Your task to perform on an android device: Clear all items from cart on walmart.com. Image 0: 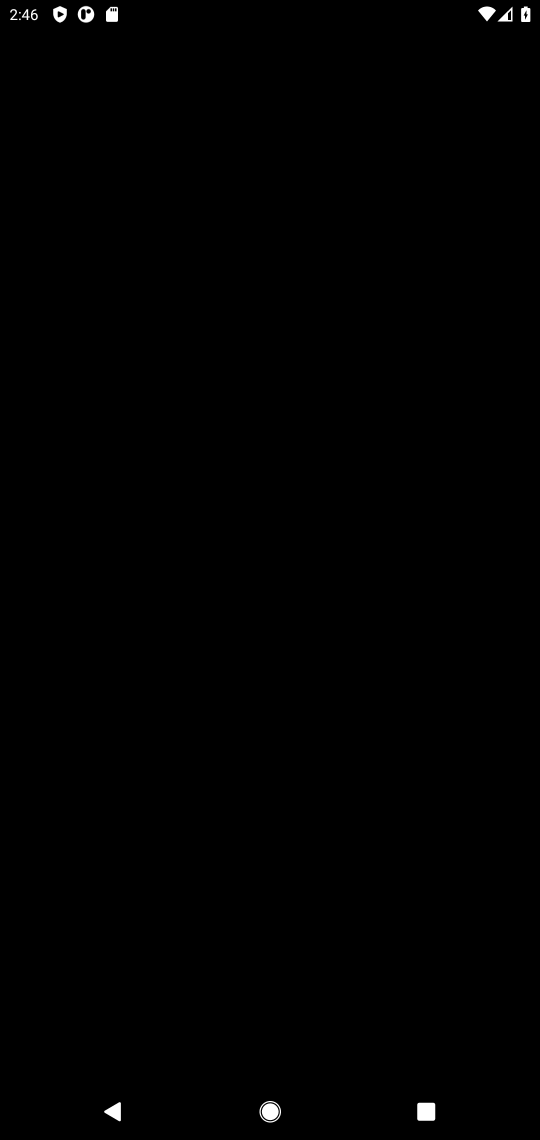
Step 0: press home button
Your task to perform on an android device: Clear all items from cart on walmart.com. Image 1: 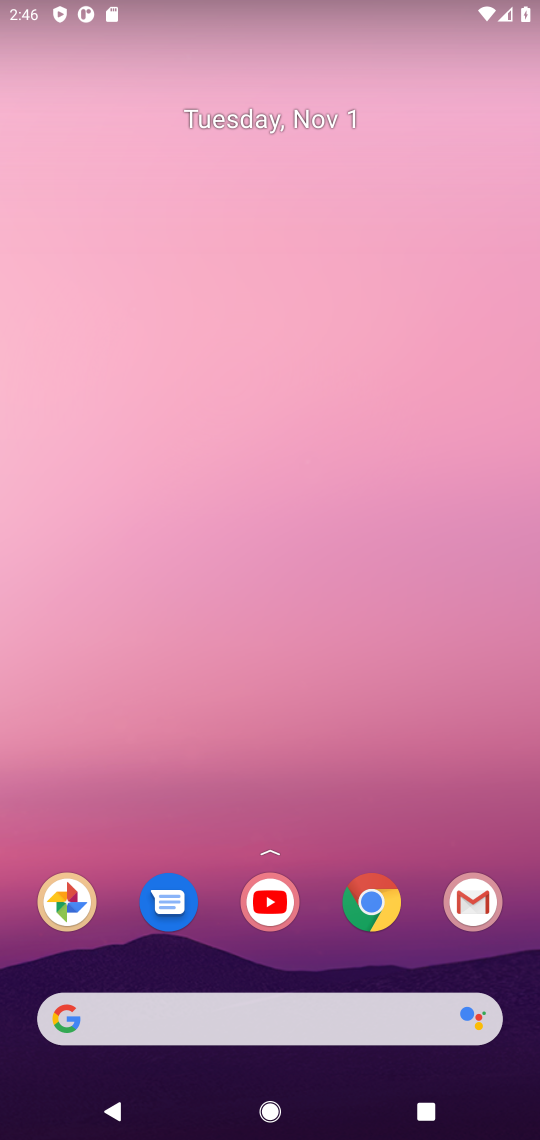
Step 1: click (370, 904)
Your task to perform on an android device: Clear all items from cart on walmart.com. Image 2: 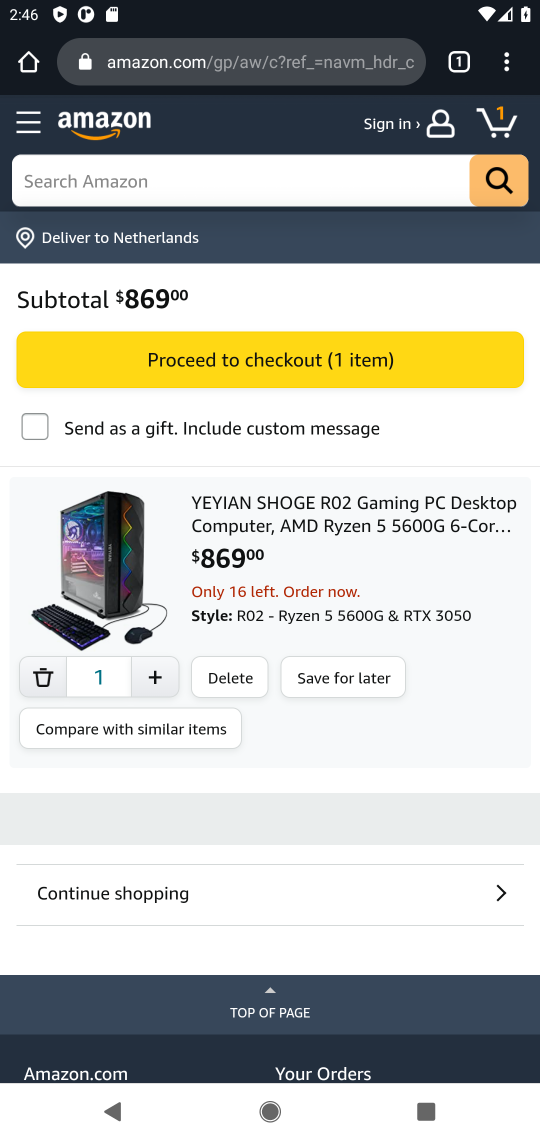
Step 2: click (289, 64)
Your task to perform on an android device: Clear all items from cart on walmart.com. Image 3: 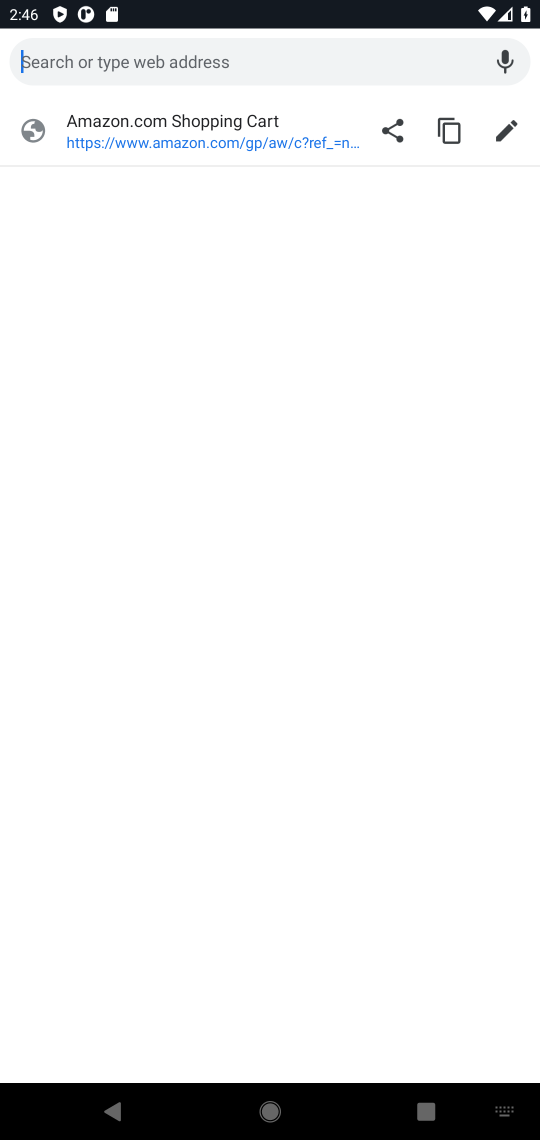
Step 3: type "walmart.com"
Your task to perform on an android device: Clear all items from cart on walmart.com. Image 4: 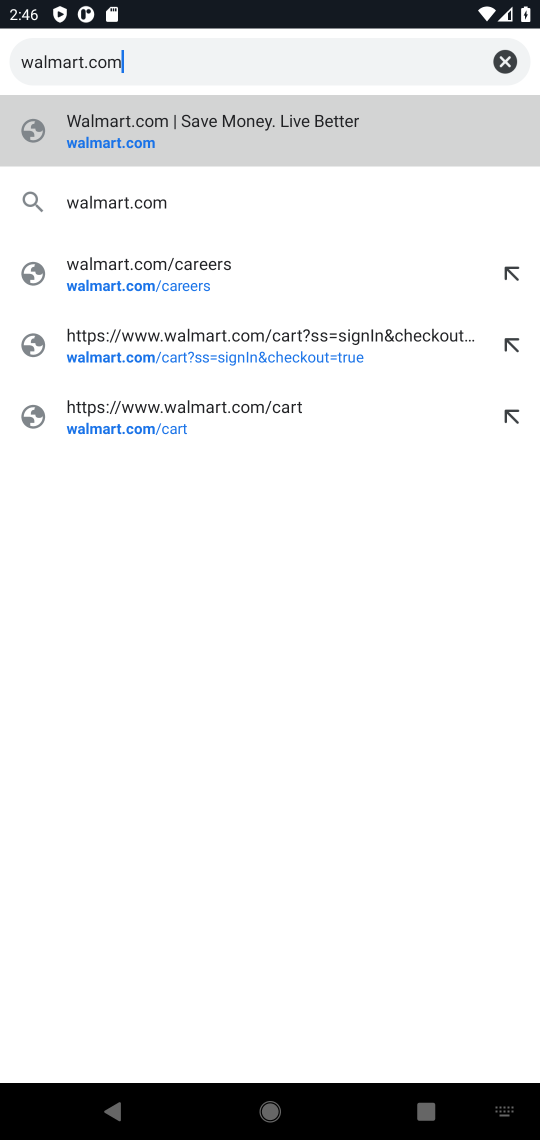
Step 4: click (158, 198)
Your task to perform on an android device: Clear all items from cart on walmart.com. Image 5: 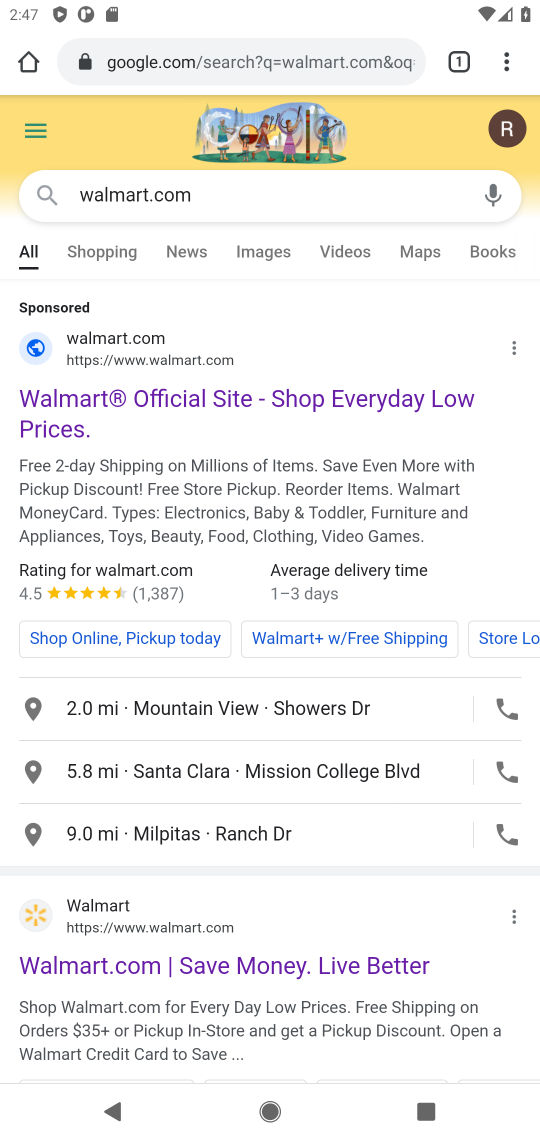
Step 5: click (153, 962)
Your task to perform on an android device: Clear all items from cart on walmart.com. Image 6: 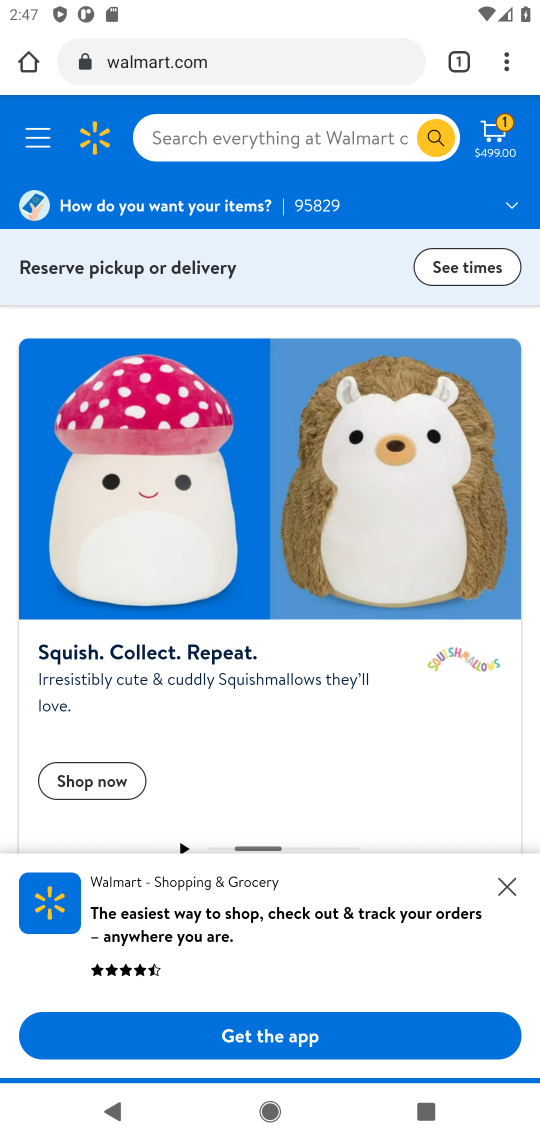
Step 6: click (498, 128)
Your task to perform on an android device: Clear all items from cart on walmart.com. Image 7: 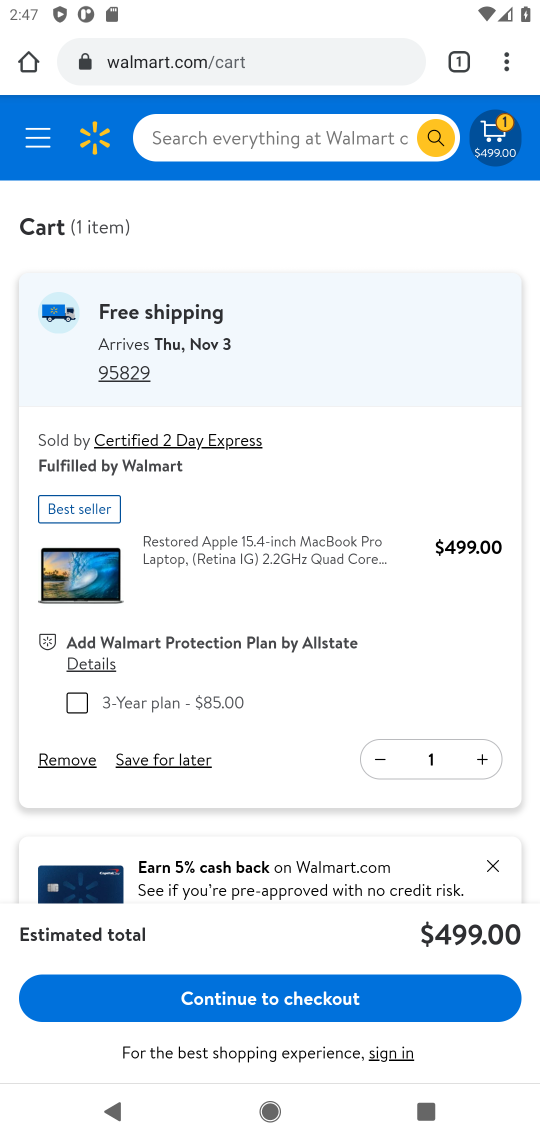
Step 7: click (71, 757)
Your task to perform on an android device: Clear all items from cart on walmart.com. Image 8: 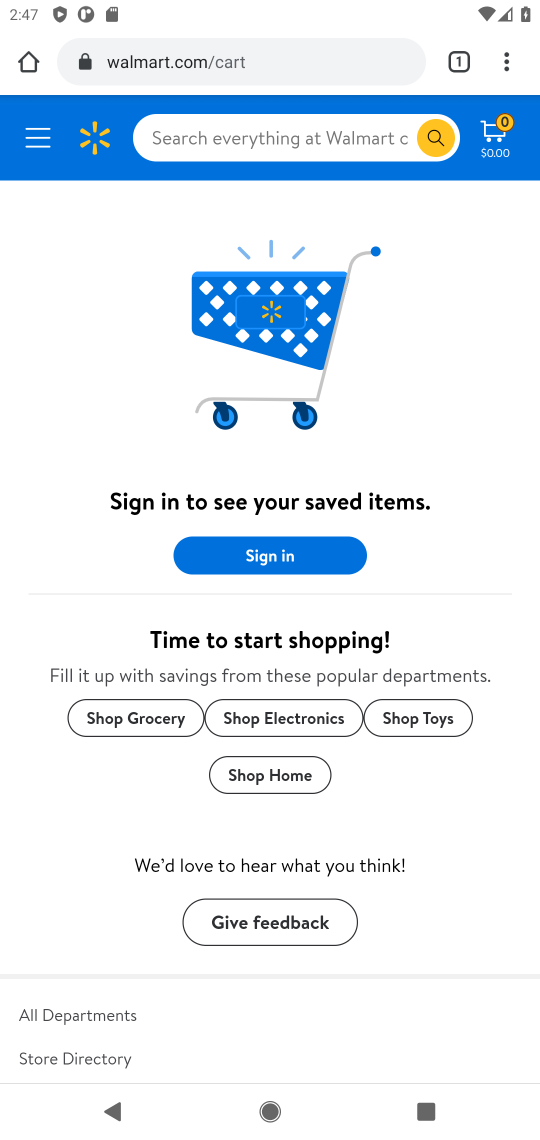
Step 8: task complete